Your task to perform on an android device: Show me recent news Image 0: 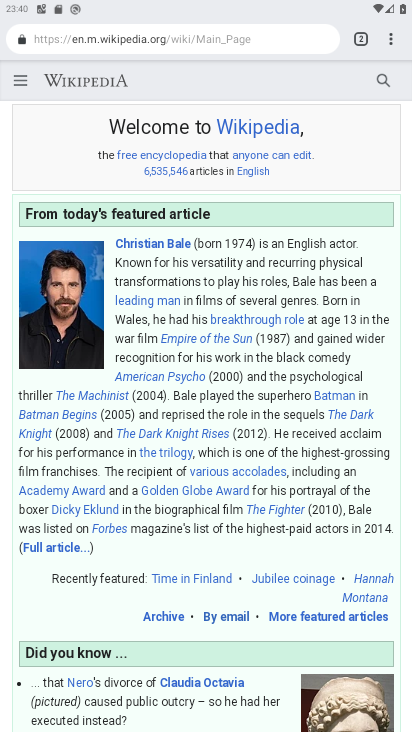
Step 0: press home button
Your task to perform on an android device: Show me recent news Image 1: 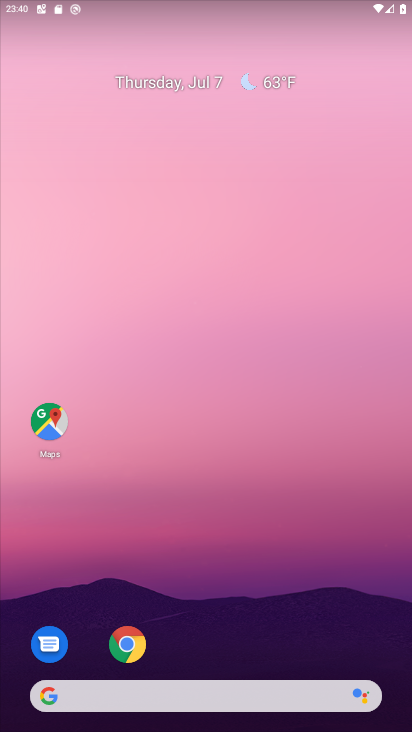
Step 1: click (0, 217)
Your task to perform on an android device: Show me recent news Image 2: 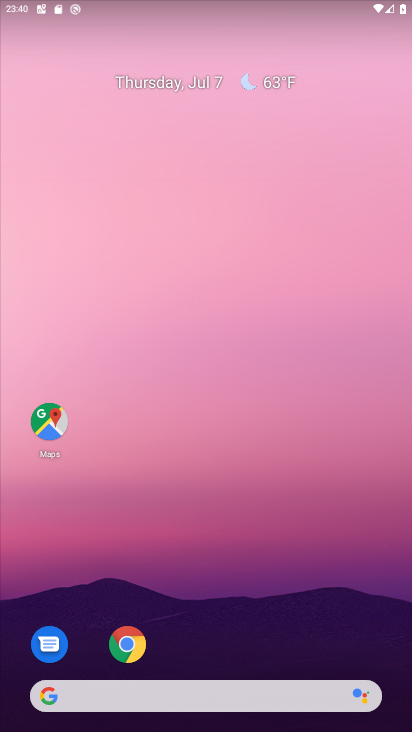
Step 2: task complete